Your task to perform on an android device: Open calendar and show me the first week of next month Image 0: 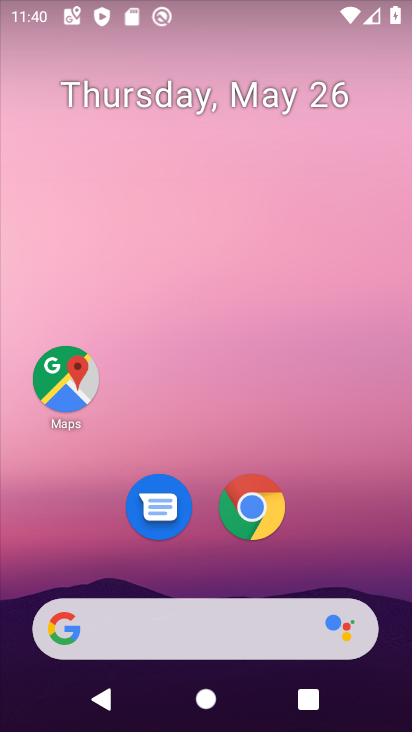
Step 0: drag from (334, 527) to (326, 106)
Your task to perform on an android device: Open calendar and show me the first week of next month Image 1: 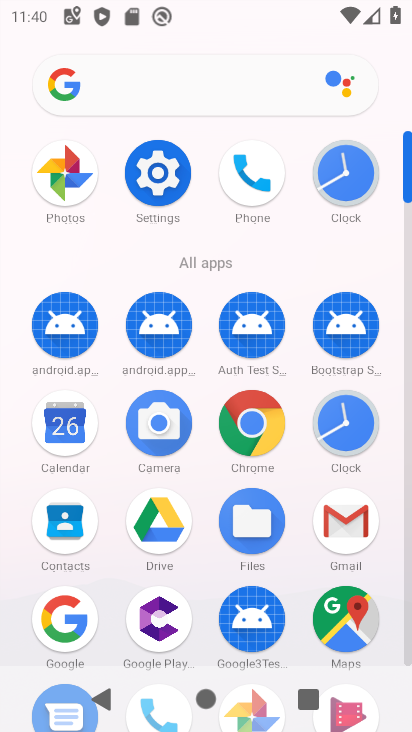
Step 1: click (66, 439)
Your task to perform on an android device: Open calendar and show me the first week of next month Image 2: 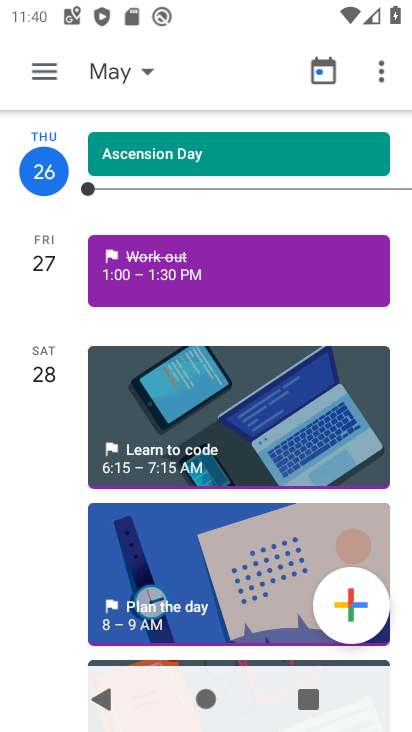
Step 2: click (383, 66)
Your task to perform on an android device: Open calendar and show me the first week of next month Image 3: 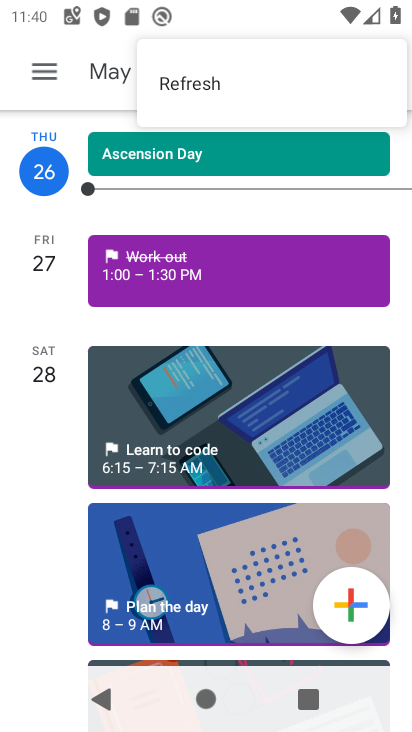
Step 3: click (105, 74)
Your task to perform on an android device: Open calendar and show me the first week of next month Image 4: 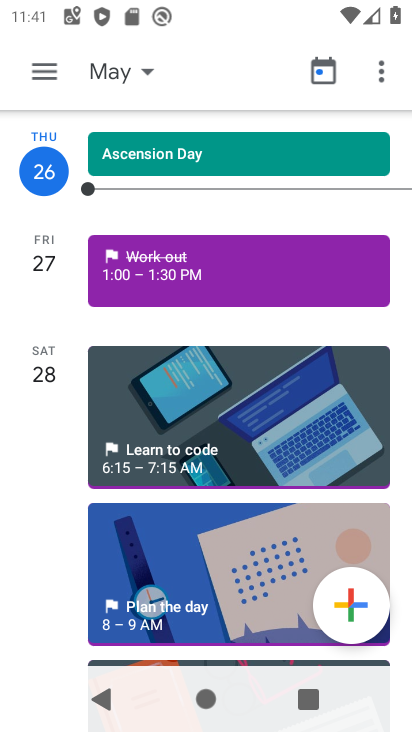
Step 4: click (105, 74)
Your task to perform on an android device: Open calendar and show me the first week of next month Image 5: 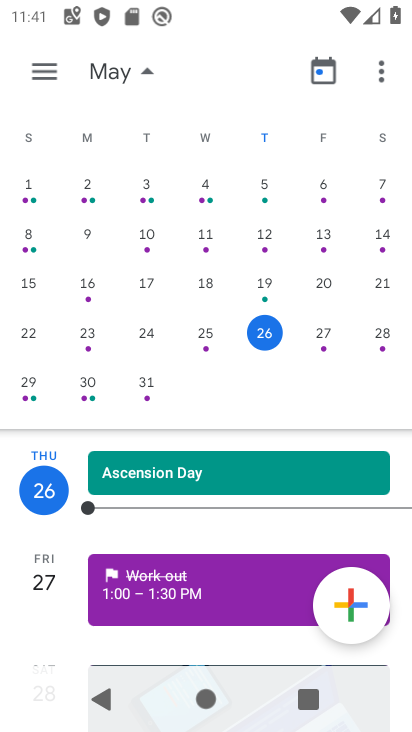
Step 5: drag from (411, 262) to (126, 307)
Your task to perform on an android device: Open calendar and show me the first week of next month Image 6: 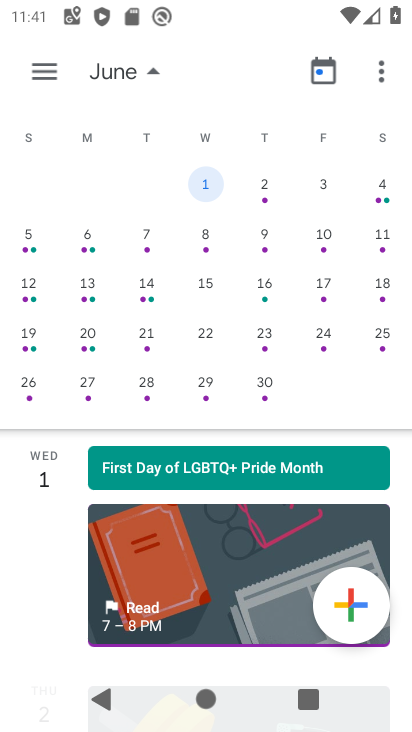
Step 6: click (31, 241)
Your task to perform on an android device: Open calendar and show me the first week of next month Image 7: 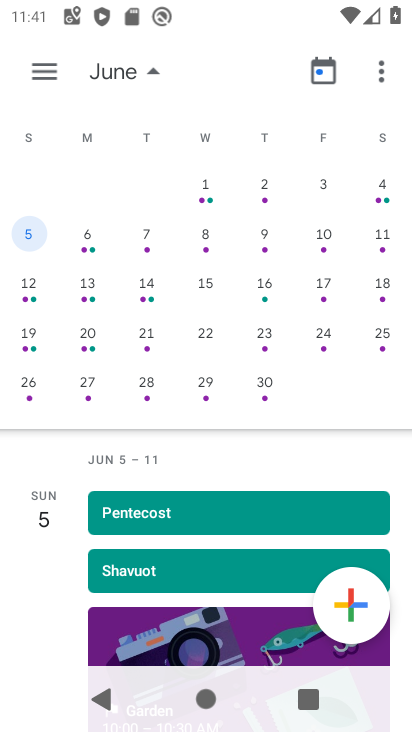
Step 7: click (37, 64)
Your task to perform on an android device: Open calendar and show me the first week of next month Image 8: 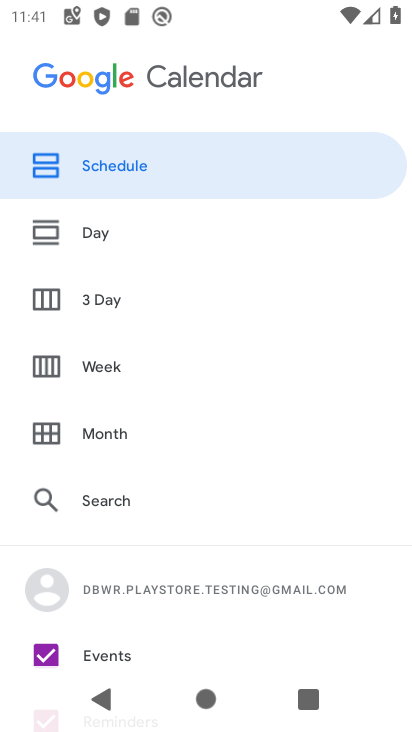
Step 8: click (113, 371)
Your task to perform on an android device: Open calendar and show me the first week of next month Image 9: 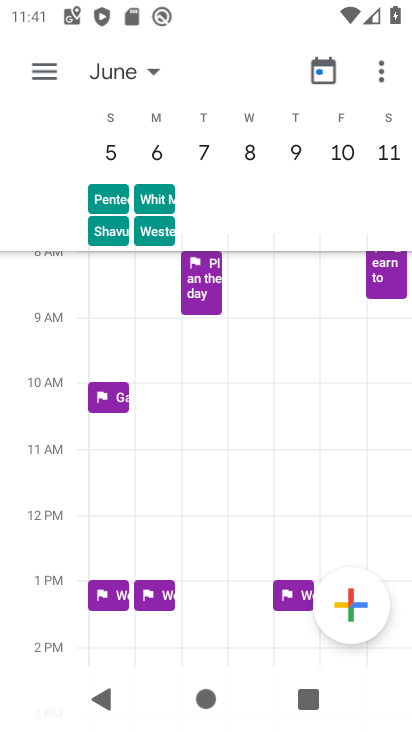
Step 9: task complete